Your task to perform on an android device: Go to notification settings Image 0: 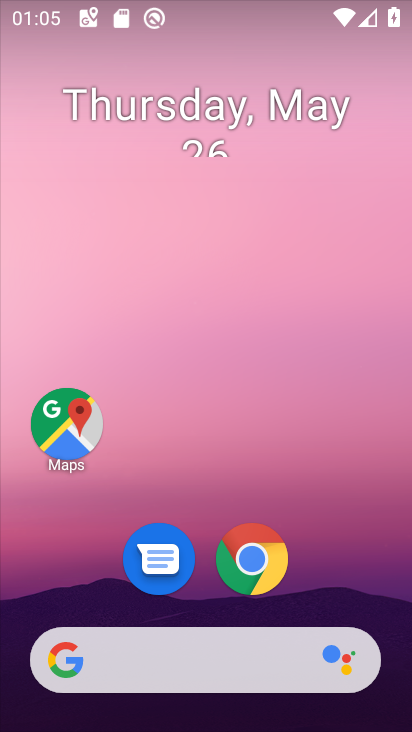
Step 0: press home button
Your task to perform on an android device: Go to notification settings Image 1: 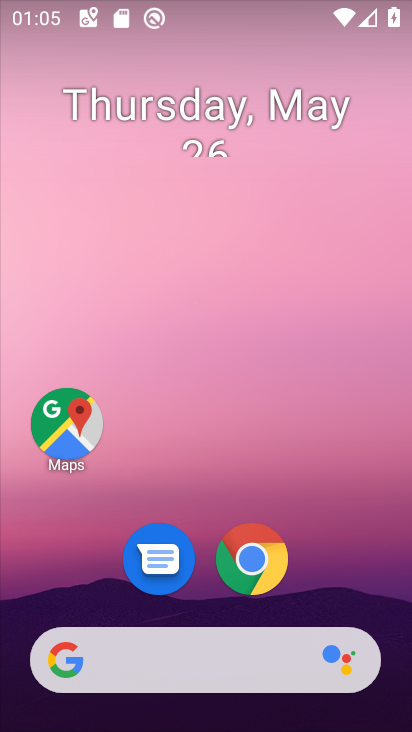
Step 1: drag from (313, 552) to (313, 80)
Your task to perform on an android device: Go to notification settings Image 2: 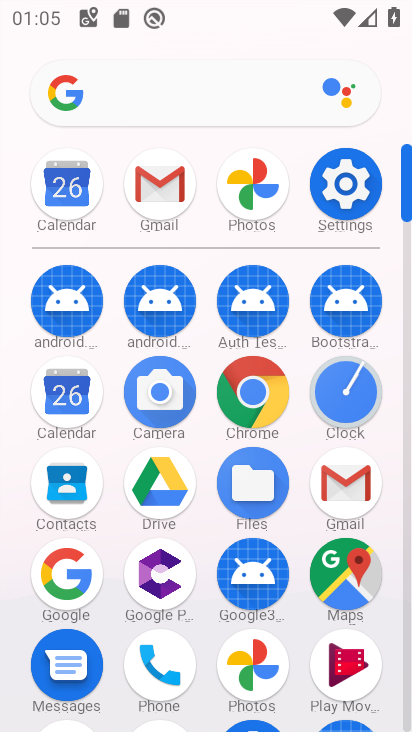
Step 2: click (346, 192)
Your task to perform on an android device: Go to notification settings Image 3: 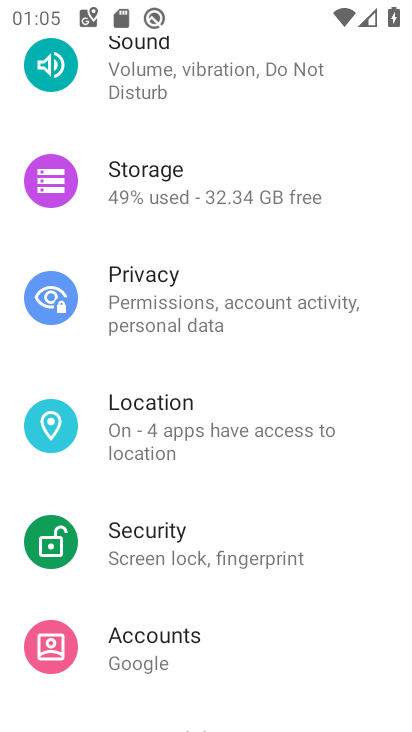
Step 3: drag from (219, 120) to (186, 631)
Your task to perform on an android device: Go to notification settings Image 4: 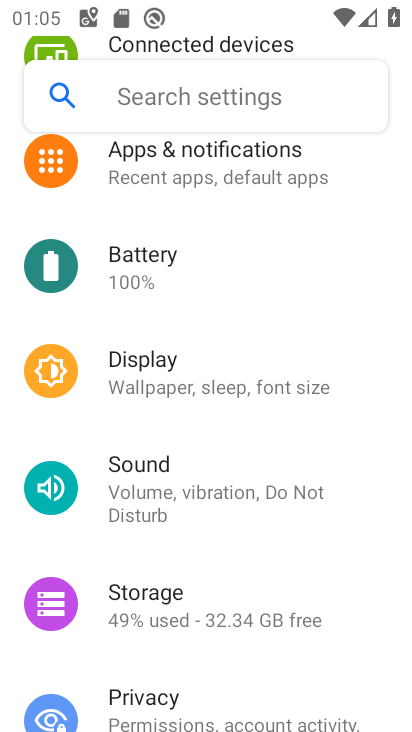
Step 4: click (167, 161)
Your task to perform on an android device: Go to notification settings Image 5: 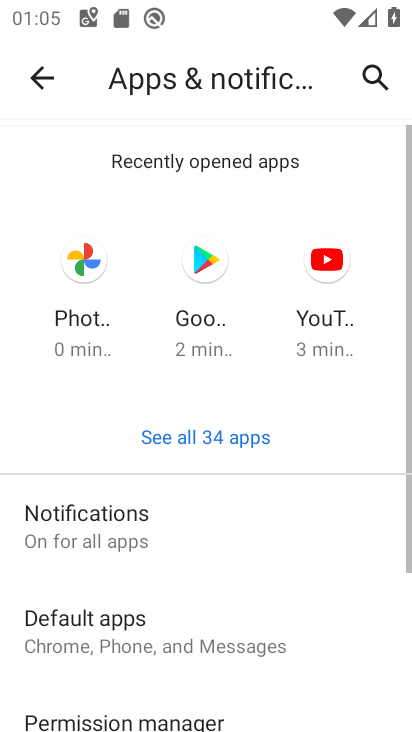
Step 5: click (81, 520)
Your task to perform on an android device: Go to notification settings Image 6: 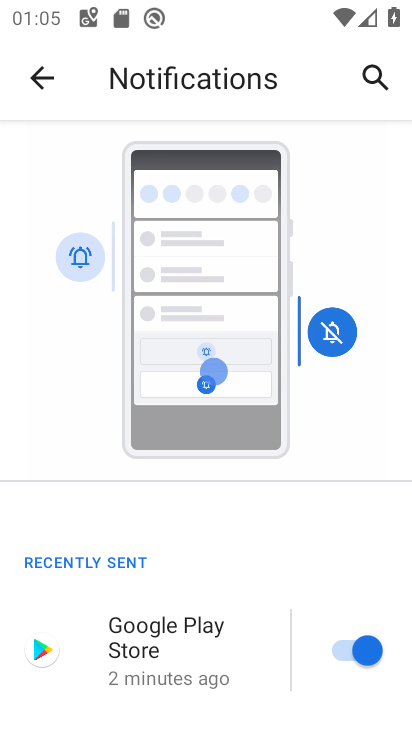
Step 6: task complete